Your task to perform on an android device: stop showing notifications on the lock screen Image 0: 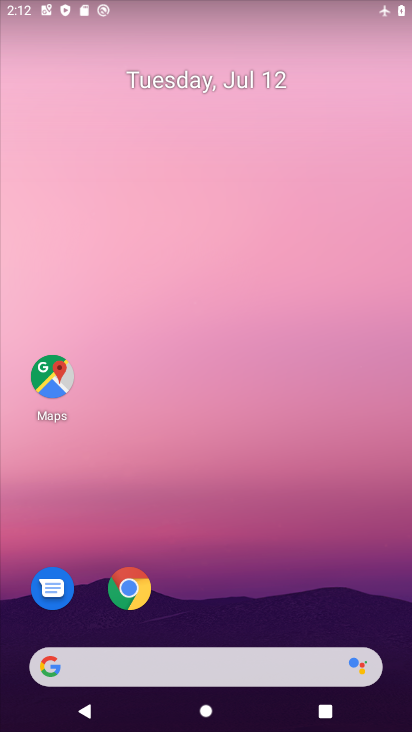
Step 0: drag from (188, 670) to (158, 192)
Your task to perform on an android device: stop showing notifications on the lock screen Image 1: 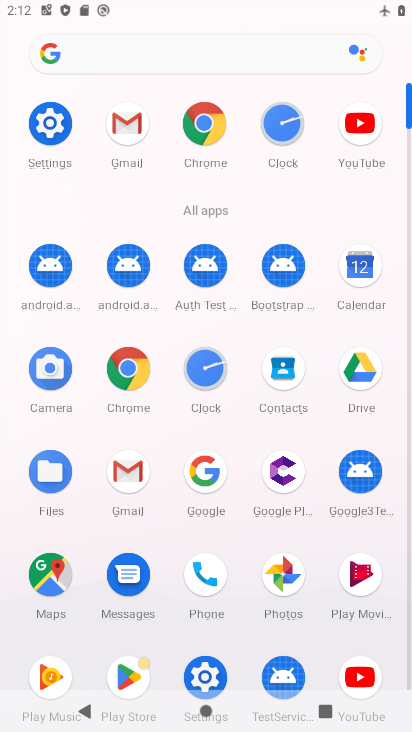
Step 1: click (50, 119)
Your task to perform on an android device: stop showing notifications on the lock screen Image 2: 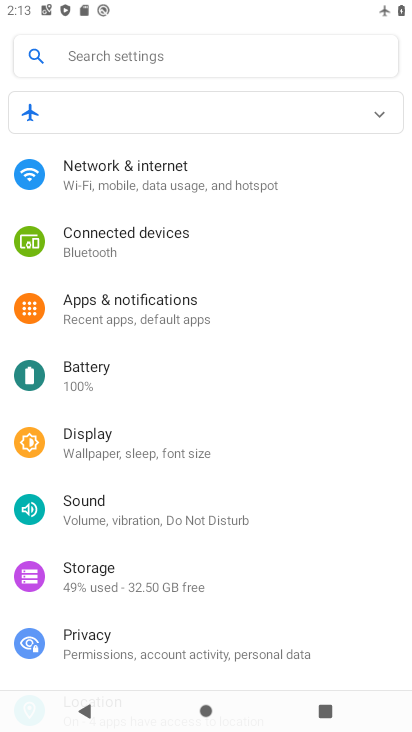
Step 2: click (148, 326)
Your task to perform on an android device: stop showing notifications on the lock screen Image 3: 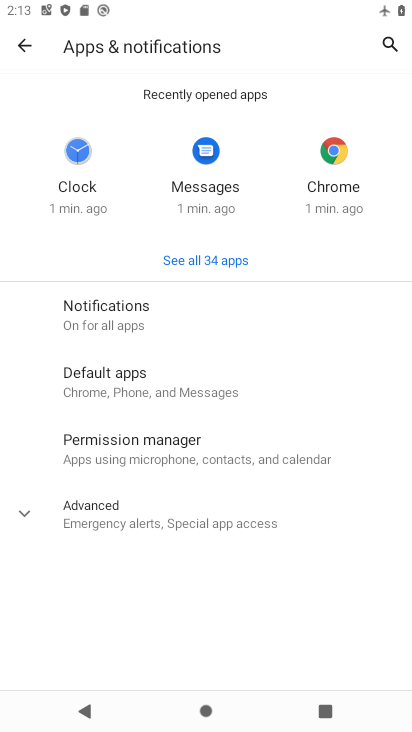
Step 3: click (120, 319)
Your task to perform on an android device: stop showing notifications on the lock screen Image 4: 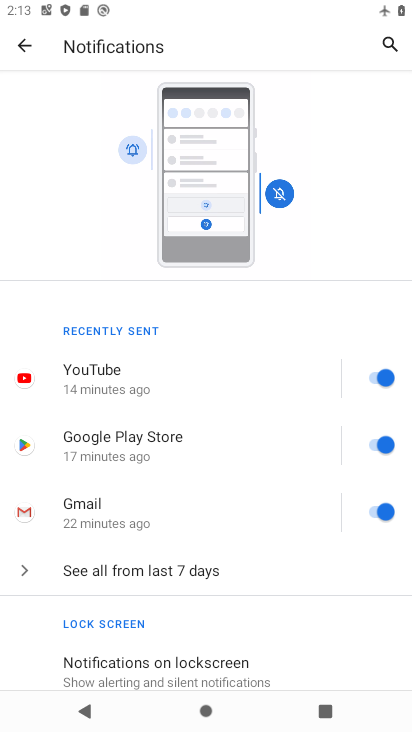
Step 4: click (204, 665)
Your task to perform on an android device: stop showing notifications on the lock screen Image 5: 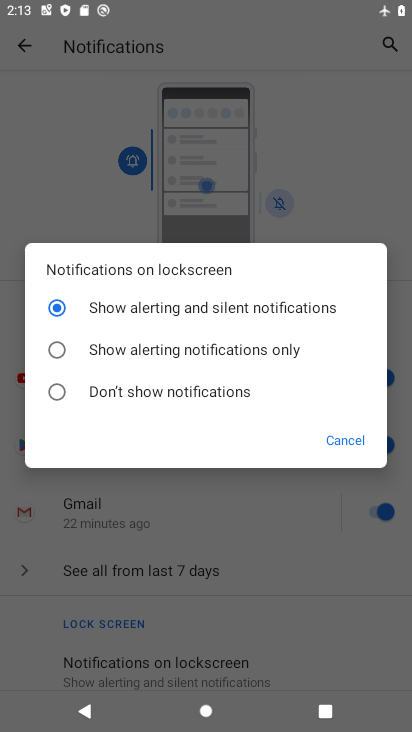
Step 5: click (182, 396)
Your task to perform on an android device: stop showing notifications on the lock screen Image 6: 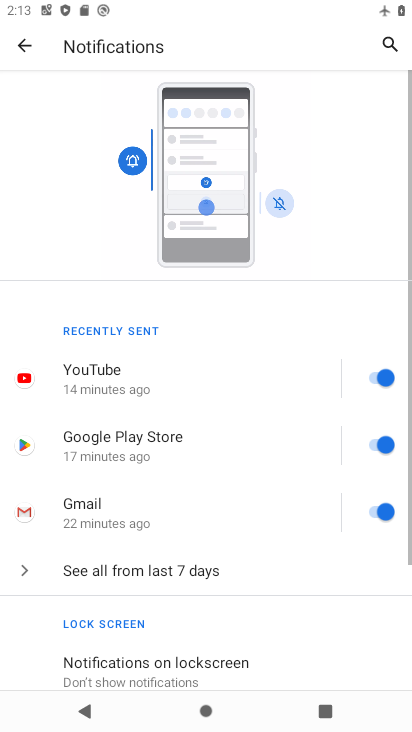
Step 6: task complete